Your task to perform on an android device: Search for Italian restaurants on Maps Image 0: 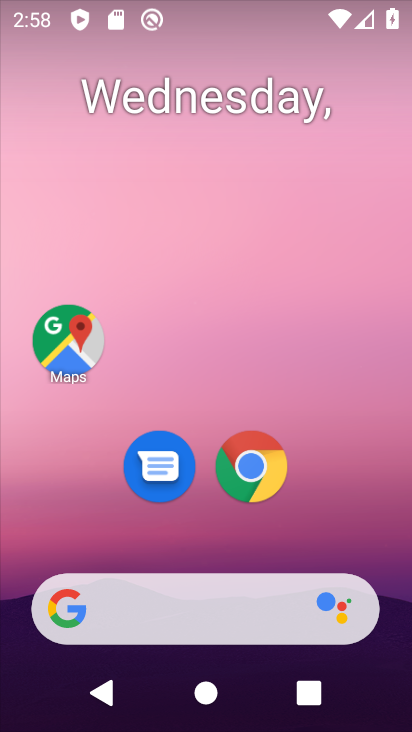
Step 0: click (51, 369)
Your task to perform on an android device: Search for Italian restaurants on Maps Image 1: 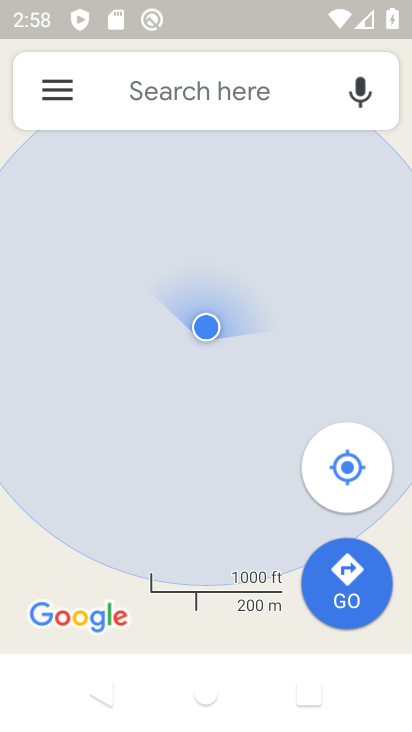
Step 1: click (226, 108)
Your task to perform on an android device: Search for Italian restaurants on Maps Image 2: 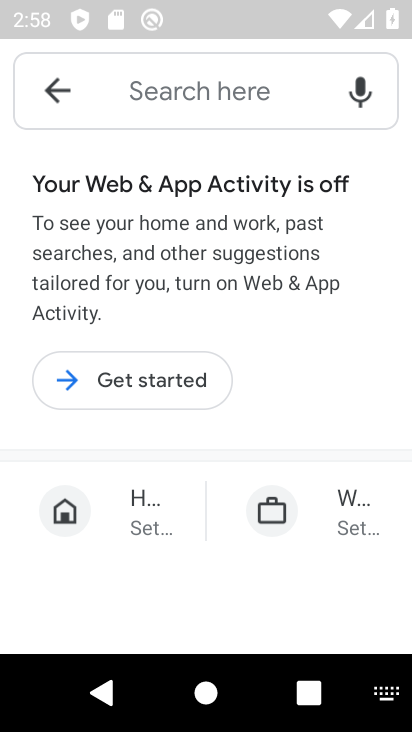
Step 2: click (144, 396)
Your task to perform on an android device: Search for Italian restaurants on Maps Image 3: 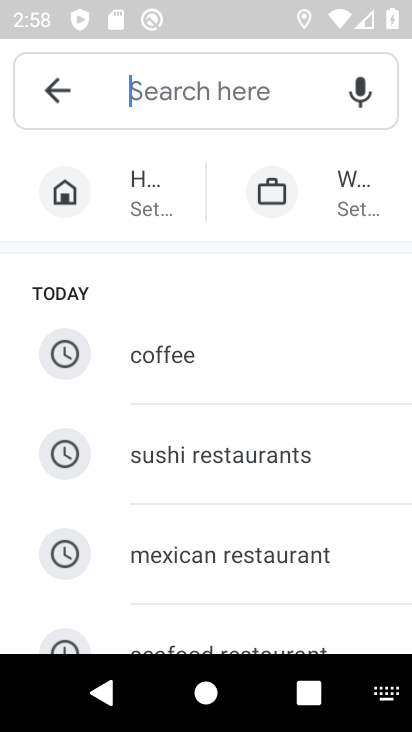
Step 3: drag from (179, 564) to (122, 154)
Your task to perform on an android device: Search for Italian restaurants on Maps Image 4: 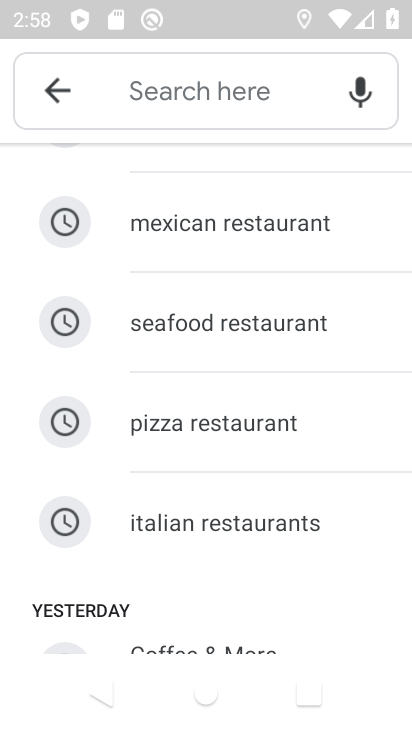
Step 4: click (185, 520)
Your task to perform on an android device: Search for Italian restaurants on Maps Image 5: 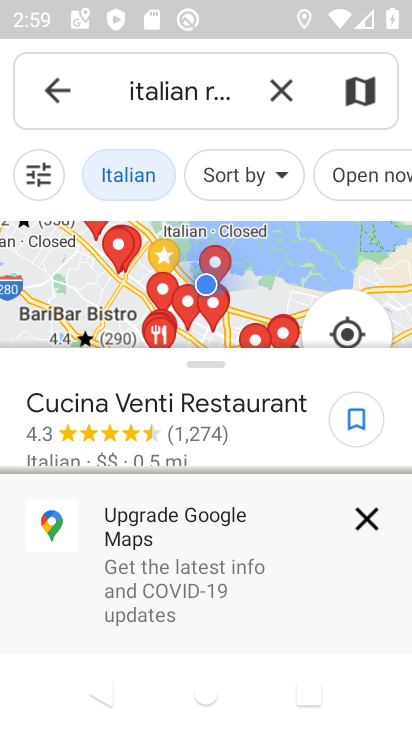
Step 5: click (357, 508)
Your task to perform on an android device: Search for Italian restaurants on Maps Image 6: 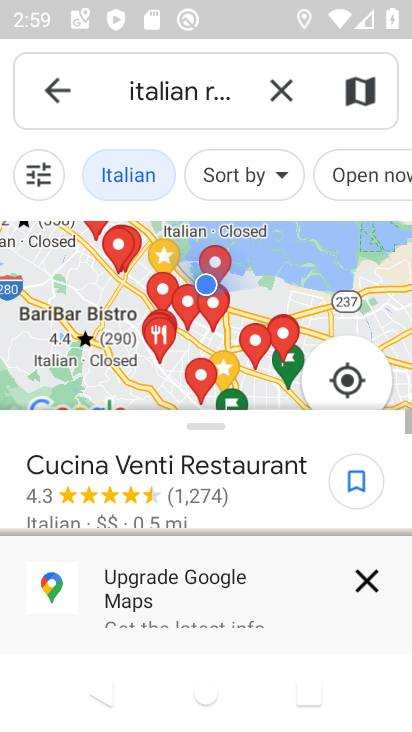
Step 6: task complete